Your task to perform on an android device: open chrome and create a bookmark for the current page Image 0: 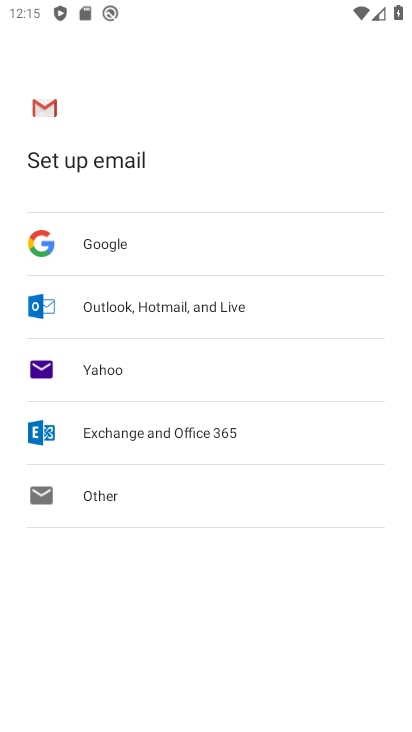
Step 0: press home button
Your task to perform on an android device: open chrome and create a bookmark for the current page Image 1: 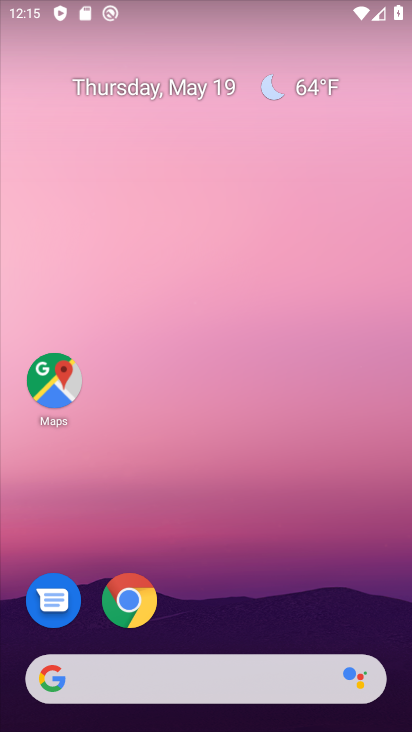
Step 1: click (130, 608)
Your task to perform on an android device: open chrome and create a bookmark for the current page Image 2: 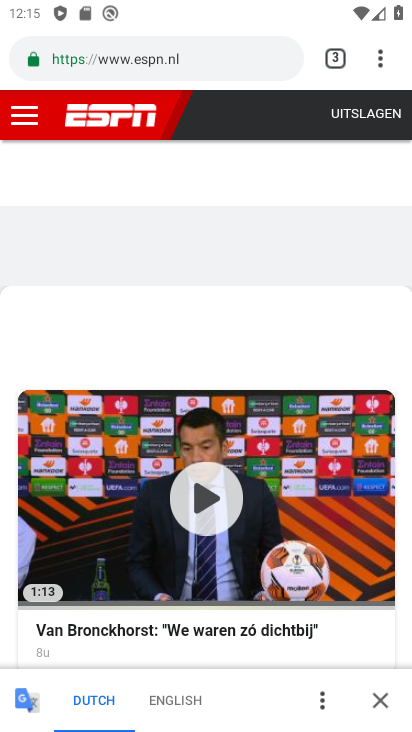
Step 2: click (374, 62)
Your task to perform on an android device: open chrome and create a bookmark for the current page Image 3: 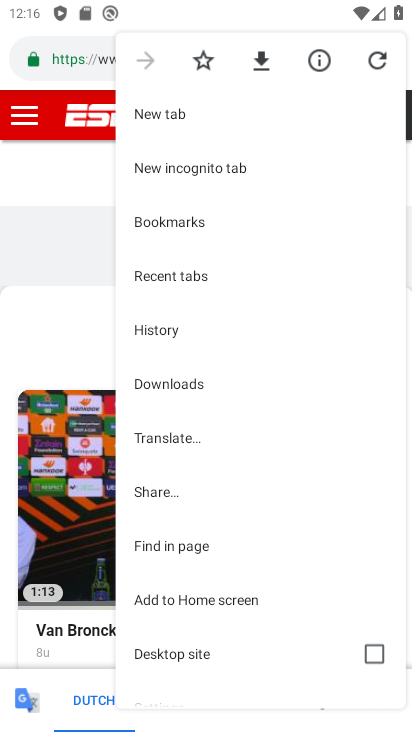
Step 3: click (198, 66)
Your task to perform on an android device: open chrome and create a bookmark for the current page Image 4: 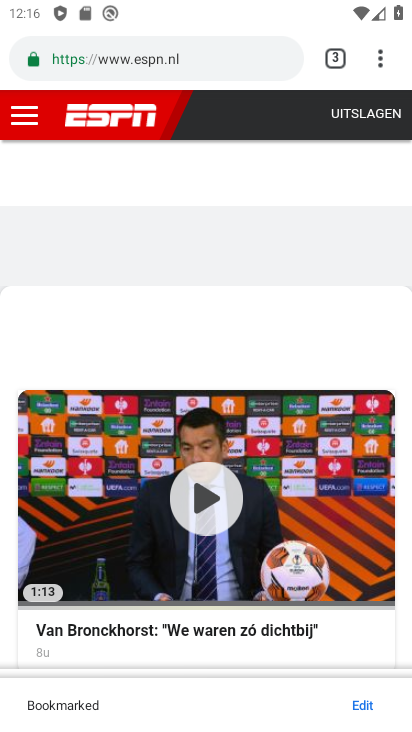
Step 4: task complete